Your task to perform on an android device: Go to privacy settings Image 0: 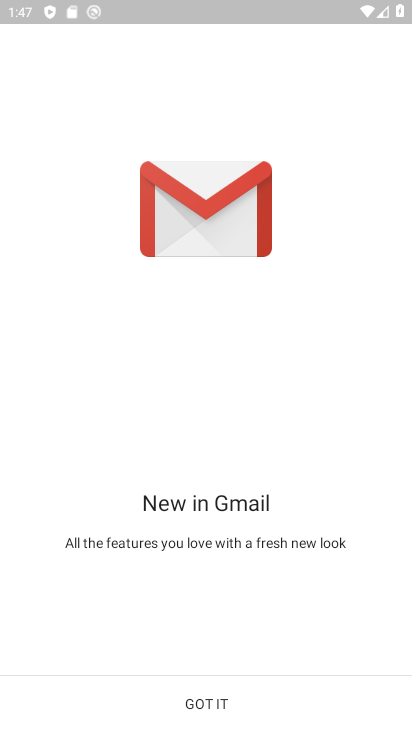
Step 0: press home button
Your task to perform on an android device: Go to privacy settings Image 1: 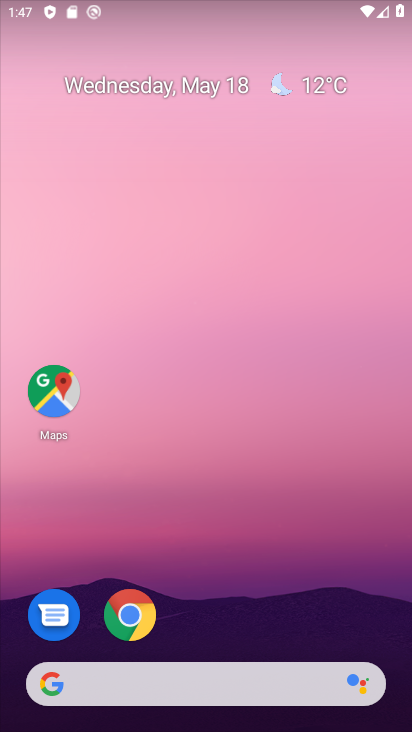
Step 1: drag from (346, 618) to (258, 35)
Your task to perform on an android device: Go to privacy settings Image 2: 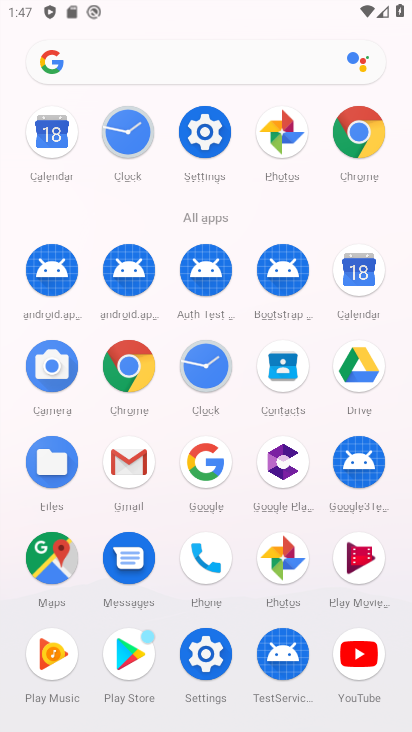
Step 2: click (211, 139)
Your task to perform on an android device: Go to privacy settings Image 3: 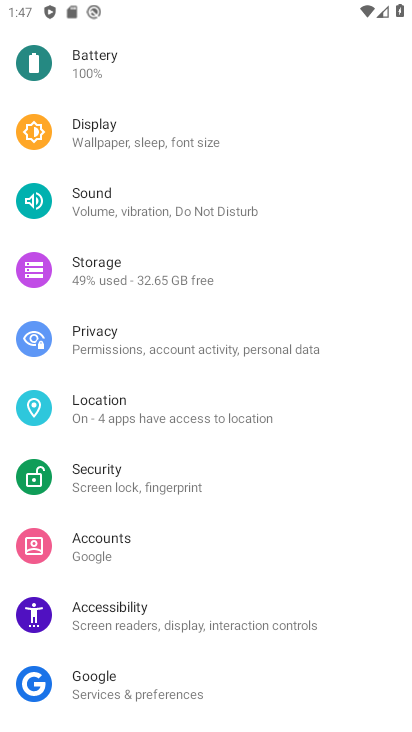
Step 3: click (128, 336)
Your task to perform on an android device: Go to privacy settings Image 4: 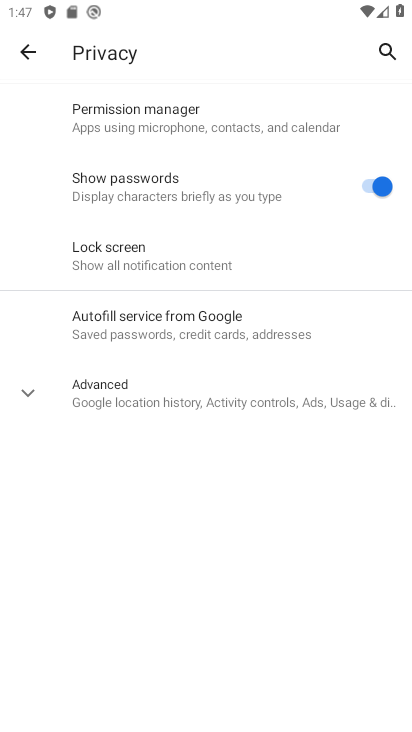
Step 4: task complete